Your task to perform on an android device: toggle javascript in the chrome app Image 0: 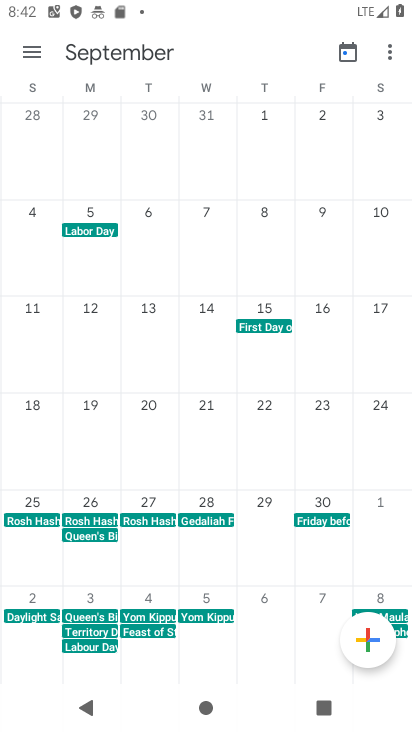
Step 0: press home button
Your task to perform on an android device: toggle javascript in the chrome app Image 1: 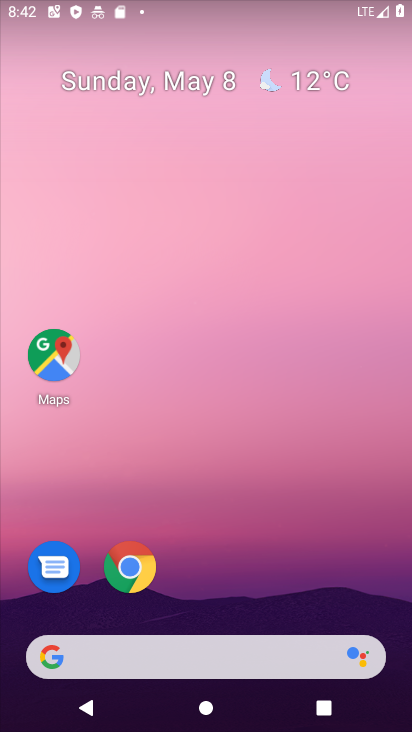
Step 1: click (147, 571)
Your task to perform on an android device: toggle javascript in the chrome app Image 2: 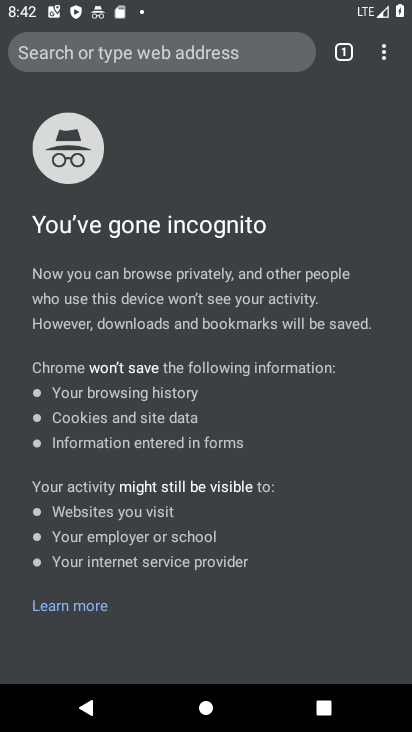
Step 2: drag from (382, 55) to (254, 441)
Your task to perform on an android device: toggle javascript in the chrome app Image 3: 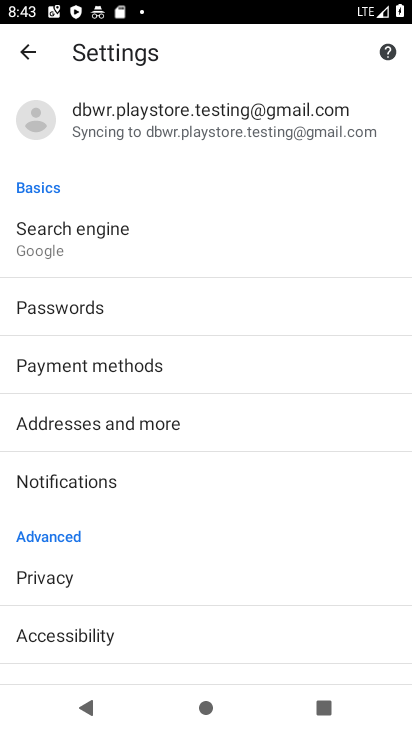
Step 3: drag from (135, 617) to (115, 50)
Your task to perform on an android device: toggle javascript in the chrome app Image 4: 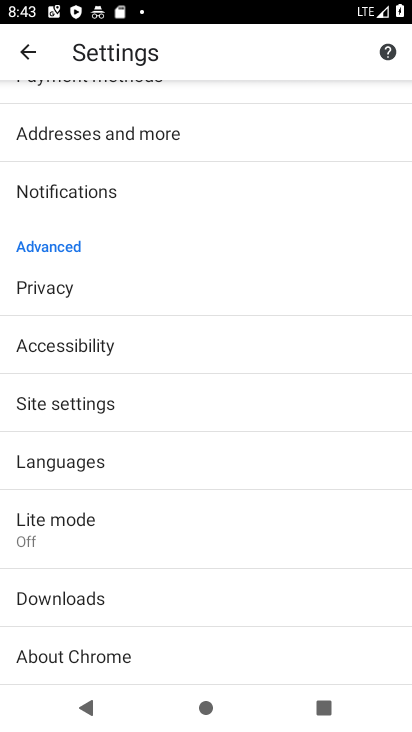
Step 4: click (112, 411)
Your task to perform on an android device: toggle javascript in the chrome app Image 5: 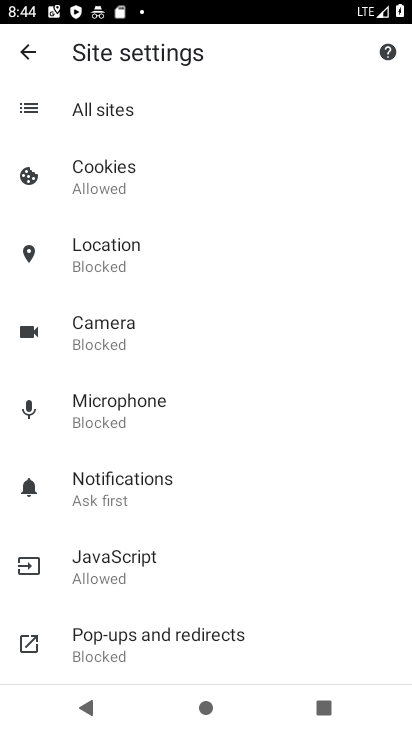
Step 5: click (120, 568)
Your task to perform on an android device: toggle javascript in the chrome app Image 6: 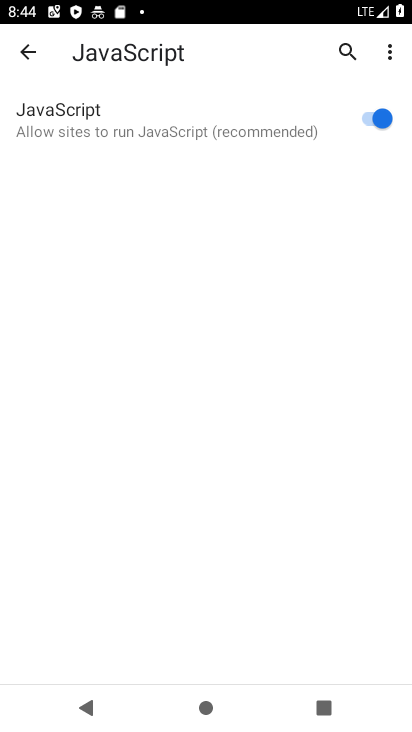
Step 6: click (365, 120)
Your task to perform on an android device: toggle javascript in the chrome app Image 7: 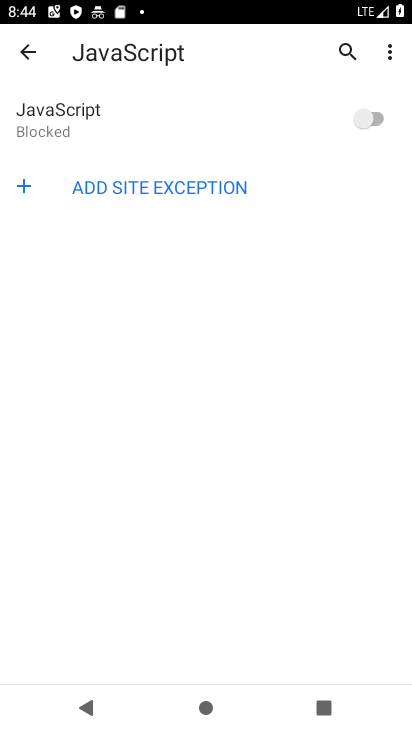
Step 7: task complete